Your task to perform on an android device: Open the stopwatch Image 0: 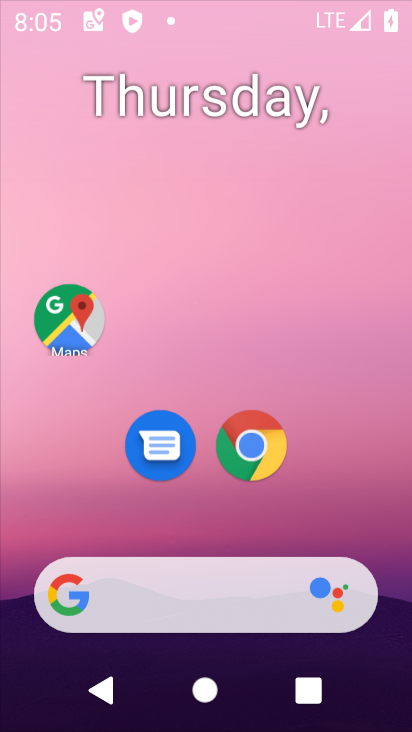
Step 0: click (262, 374)
Your task to perform on an android device: Open the stopwatch Image 1: 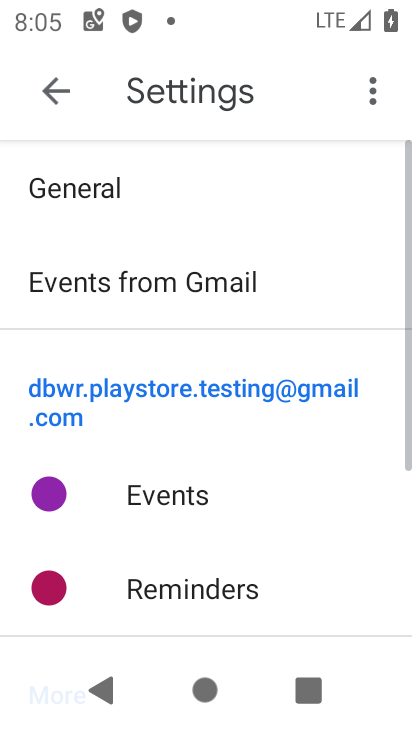
Step 1: drag from (217, 523) to (237, 209)
Your task to perform on an android device: Open the stopwatch Image 2: 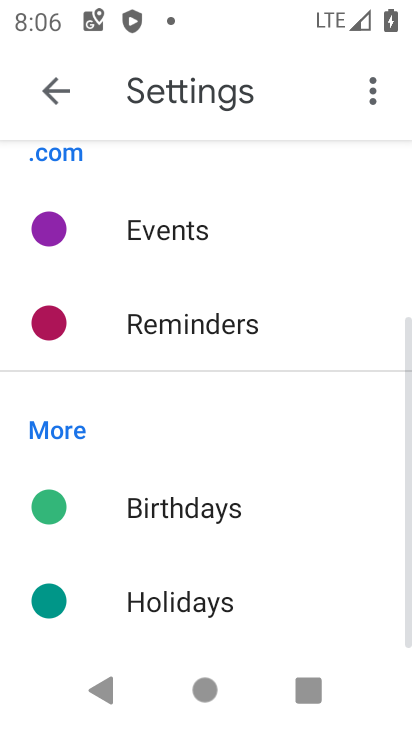
Step 2: press home button
Your task to perform on an android device: Open the stopwatch Image 3: 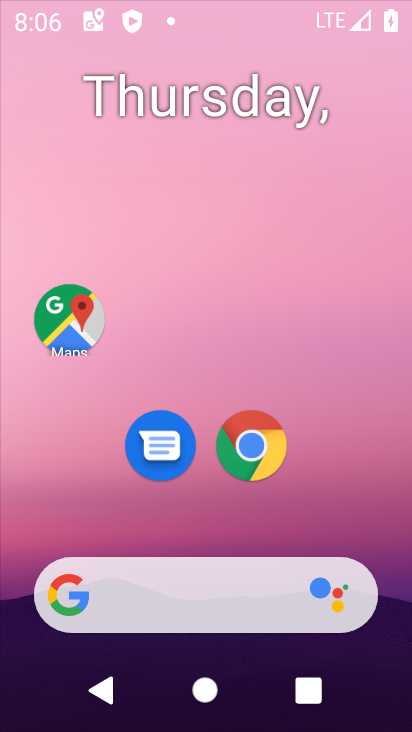
Step 3: drag from (230, 599) to (247, 254)
Your task to perform on an android device: Open the stopwatch Image 4: 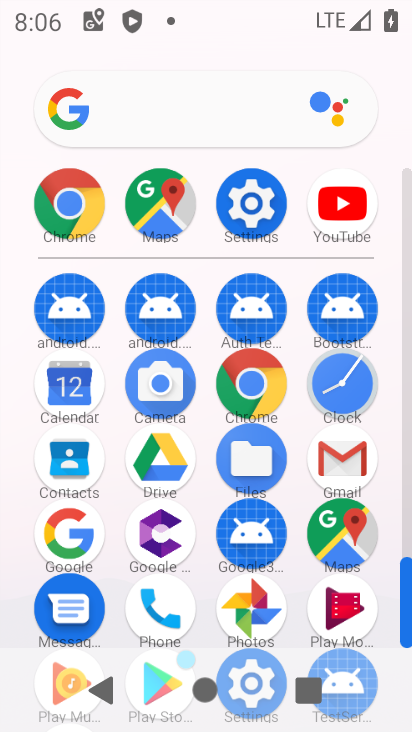
Step 4: click (337, 369)
Your task to perform on an android device: Open the stopwatch Image 5: 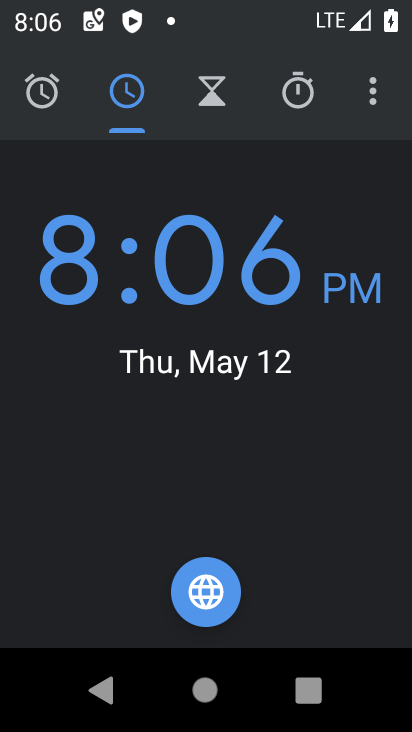
Step 5: click (306, 90)
Your task to perform on an android device: Open the stopwatch Image 6: 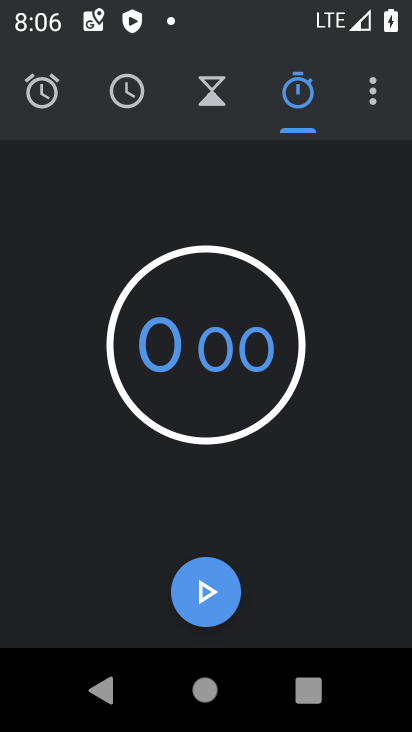
Step 6: click (207, 580)
Your task to perform on an android device: Open the stopwatch Image 7: 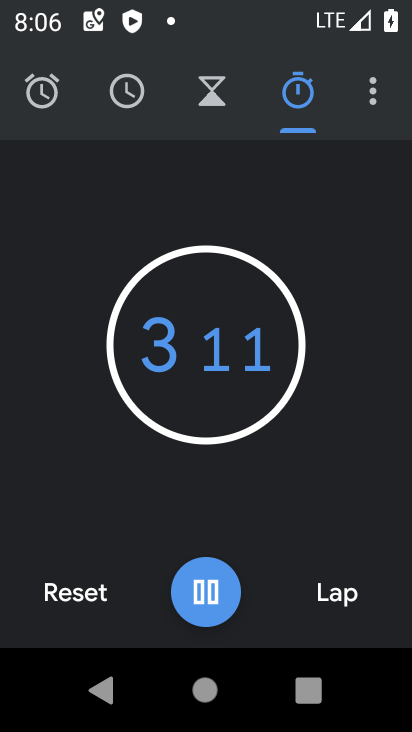
Step 7: task complete